Your task to perform on an android device: Go to Yahoo.com Image 0: 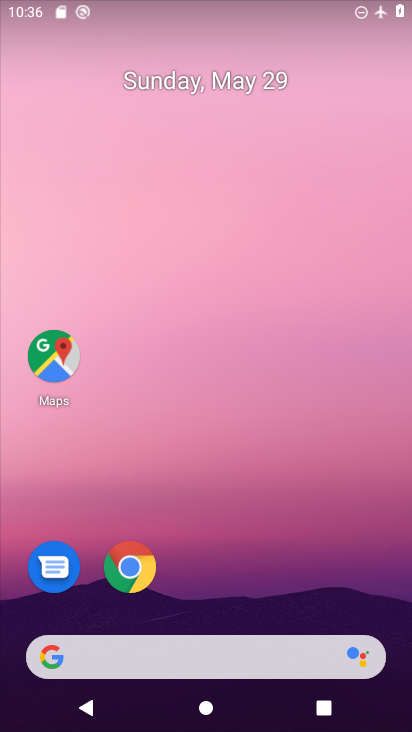
Step 0: click (131, 569)
Your task to perform on an android device: Go to Yahoo.com Image 1: 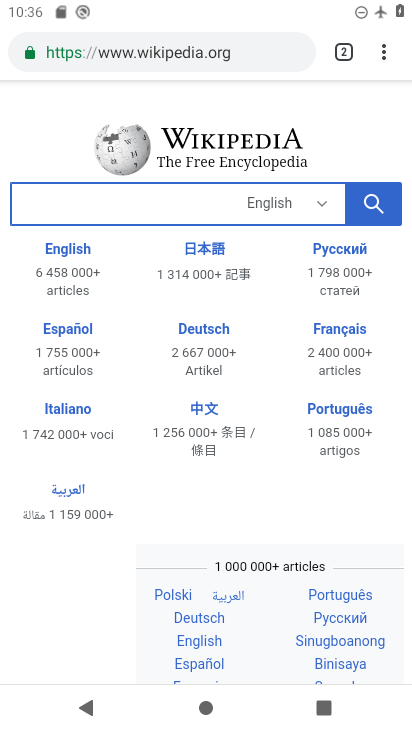
Step 1: click (258, 57)
Your task to perform on an android device: Go to Yahoo.com Image 2: 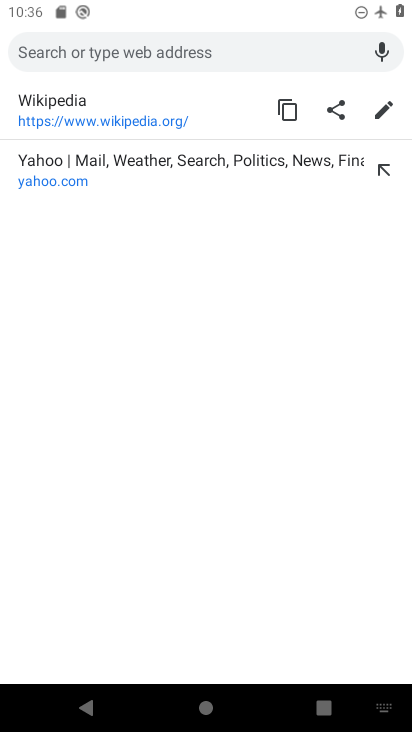
Step 2: type "yahoo.com"
Your task to perform on an android device: Go to Yahoo.com Image 3: 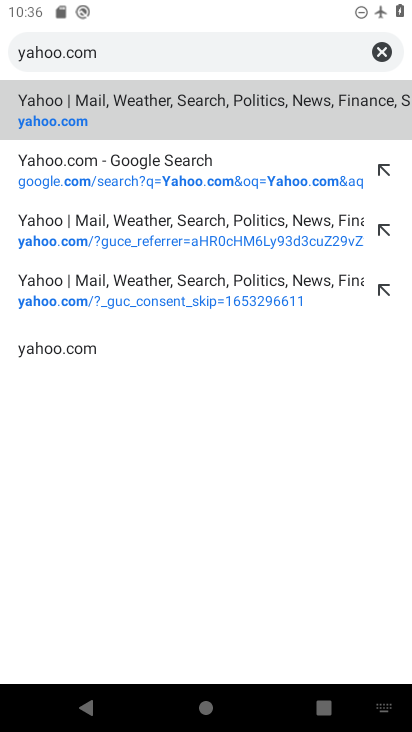
Step 3: click (64, 109)
Your task to perform on an android device: Go to Yahoo.com Image 4: 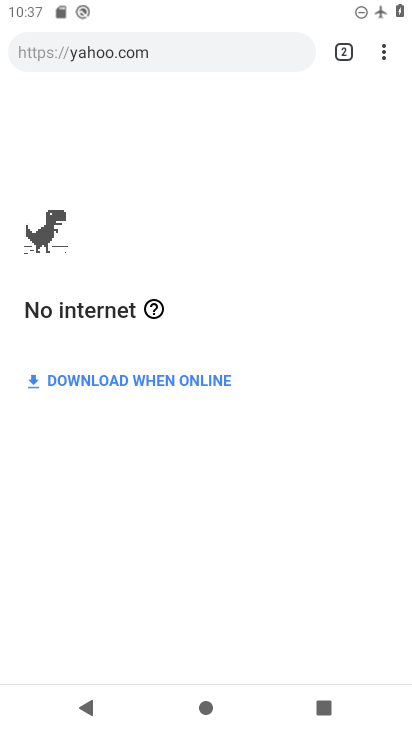
Step 4: task complete